Your task to perform on an android device: Go to settings Image 0: 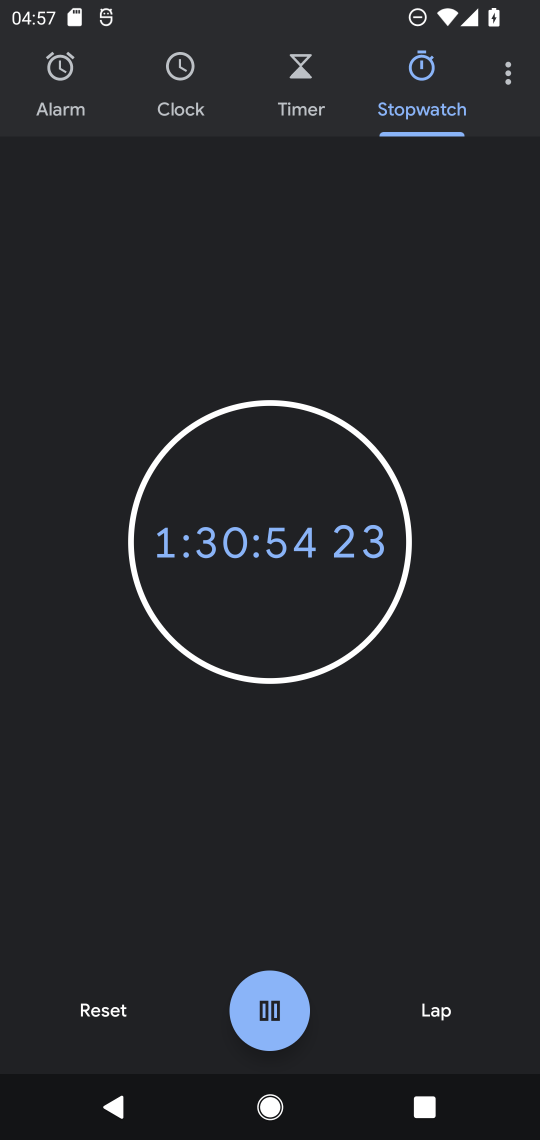
Step 0: press home button
Your task to perform on an android device: Go to settings Image 1: 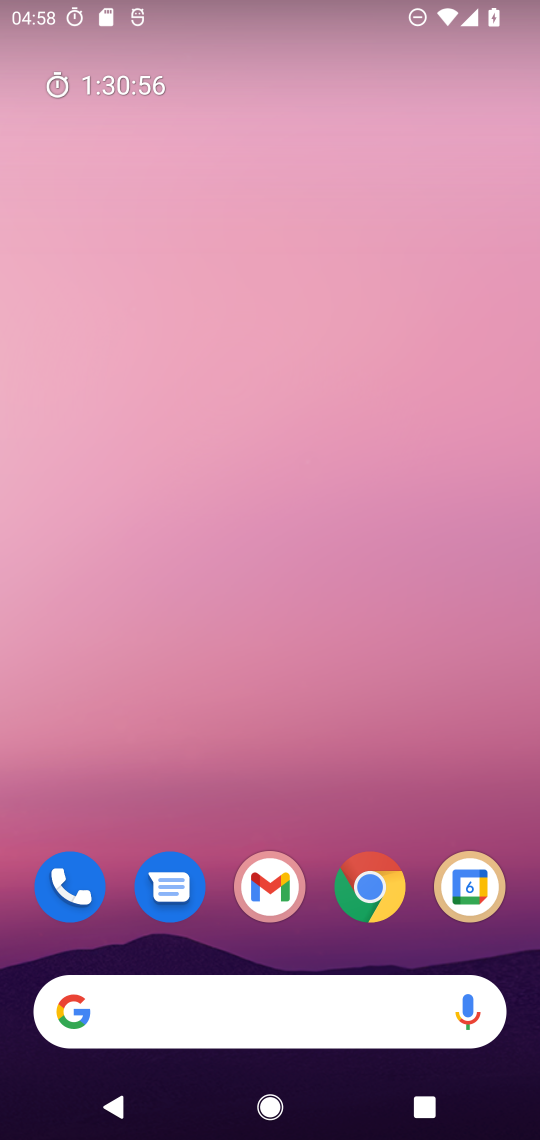
Step 1: drag from (392, 805) to (428, 211)
Your task to perform on an android device: Go to settings Image 2: 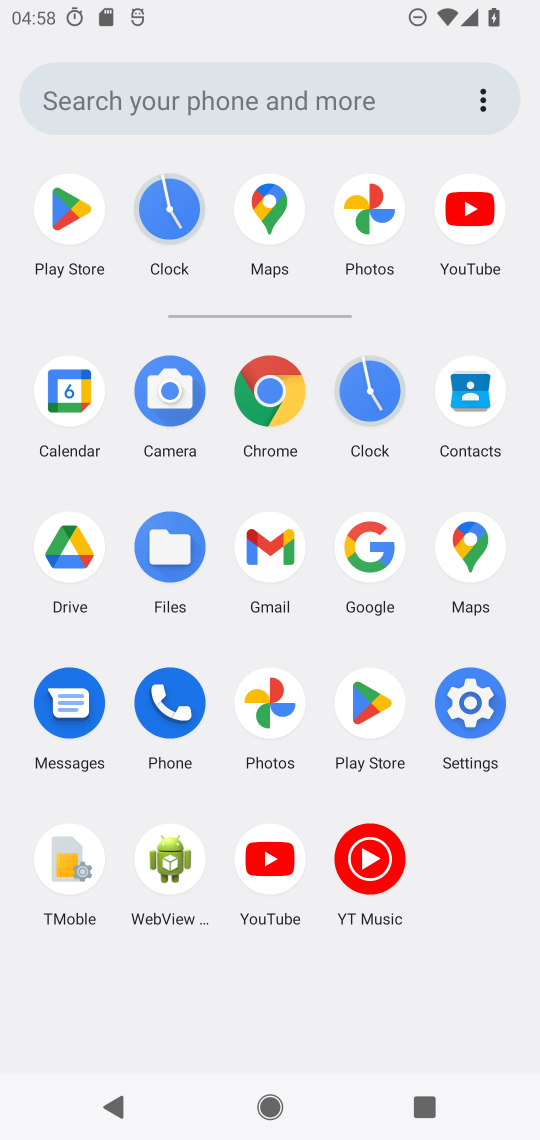
Step 2: click (465, 687)
Your task to perform on an android device: Go to settings Image 3: 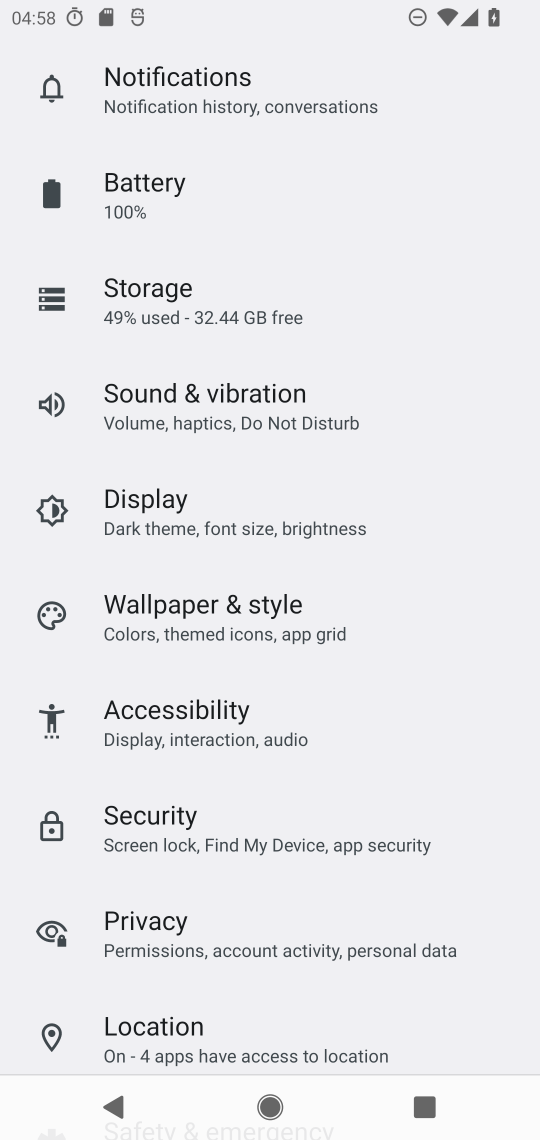
Step 3: task complete